Your task to perform on an android device: What's on my calendar today? Image 0: 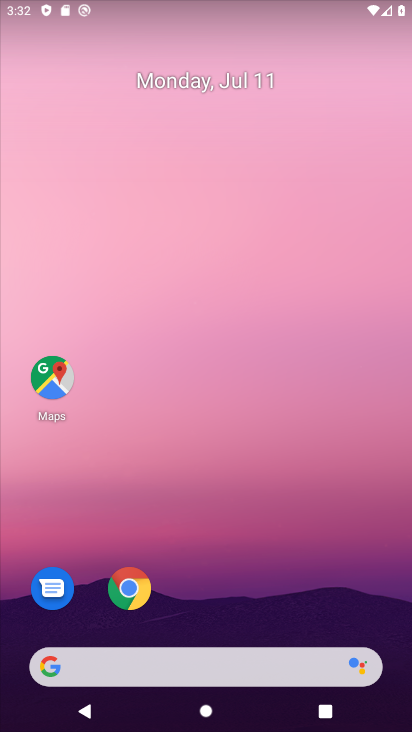
Step 0: press home button
Your task to perform on an android device: What's on my calendar today? Image 1: 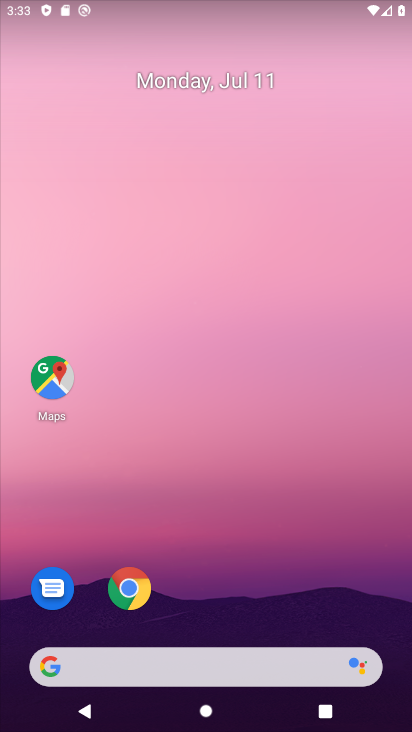
Step 1: drag from (230, 621) to (231, 31)
Your task to perform on an android device: What's on my calendar today? Image 2: 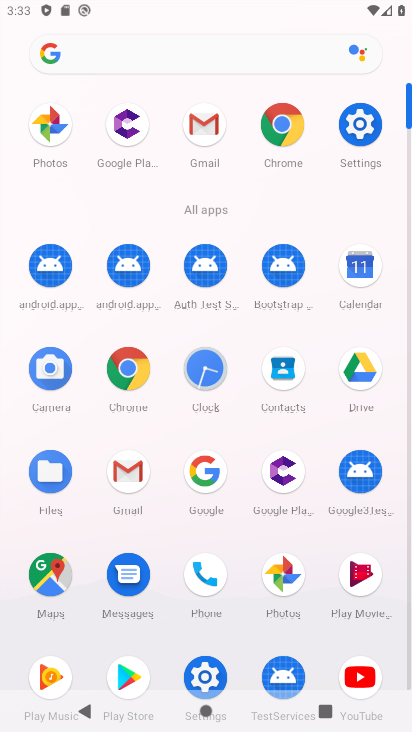
Step 2: click (356, 272)
Your task to perform on an android device: What's on my calendar today? Image 3: 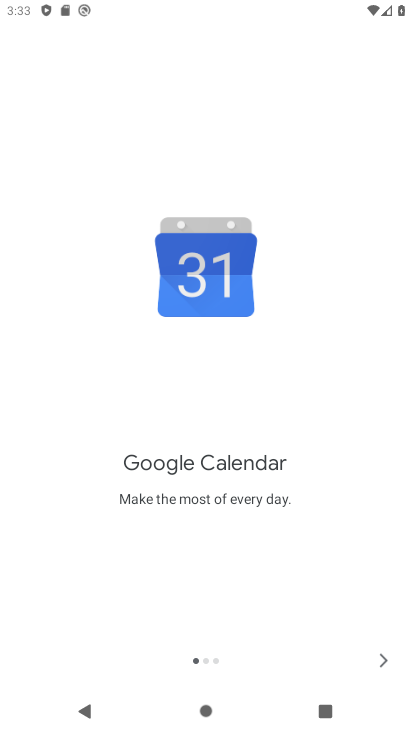
Step 3: click (384, 661)
Your task to perform on an android device: What's on my calendar today? Image 4: 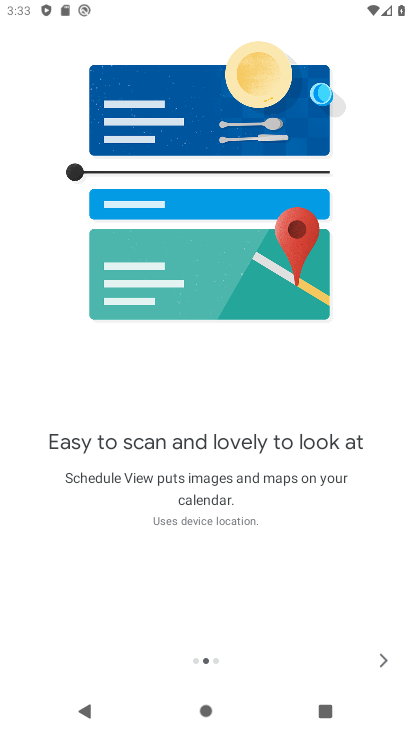
Step 4: click (384, 660)
Your task to perform on an android device: What's on my calendar today? Image 5: 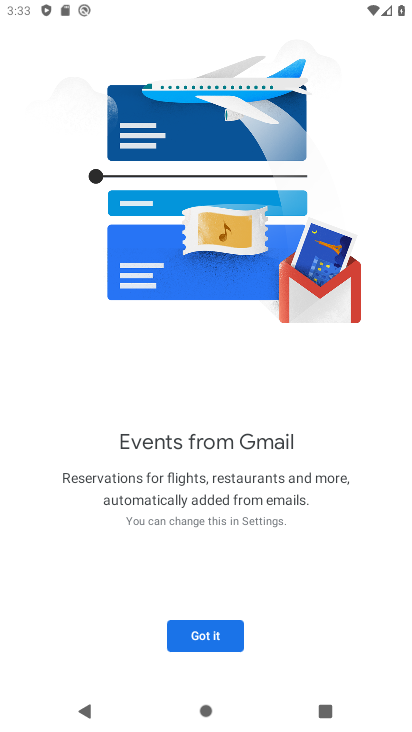
Step 5: click (185, 645)
Your task to perform on an android device: What's on my calendar today? Image 6: 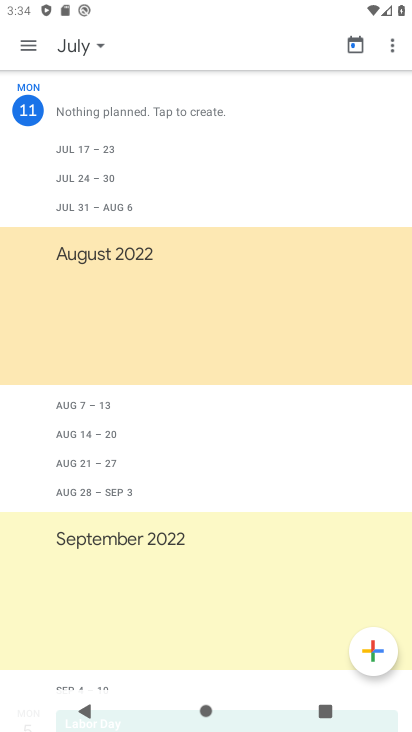
Step 6: click (29, 49)
Your task to perform on an android device: What's on my calendar today? Image 7: 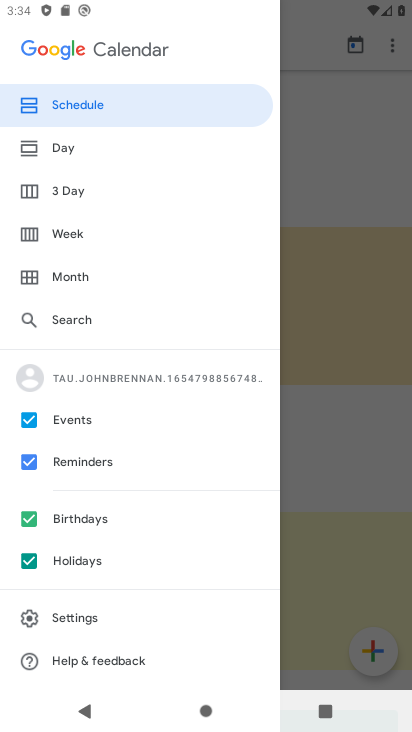
Step 7: click (75, 271)
Your task to perform on an android device: What's on my calendar today? Image 8: 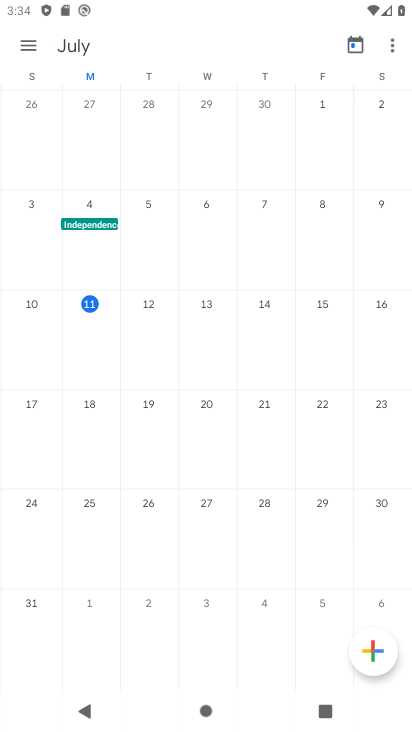
Step 8: click (89, 303)
Your task to perform on an android device: What's on my calendar today? Image 9: 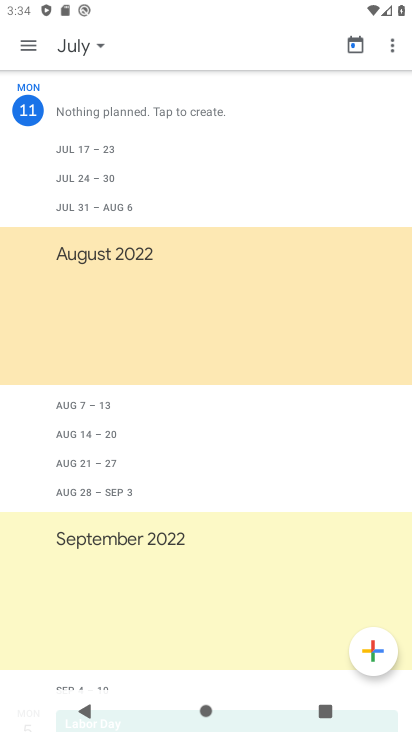
Step 9: task complete